Your task to perform on an android device: Open the stopwatch Image 0: 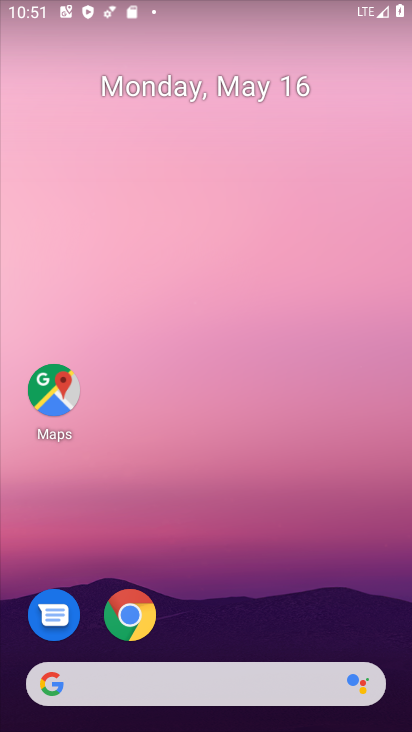
Step 0: drag from (233, 600) to (248, 272)
Your task to perform on an android device: Open the stopwatch Image 1: 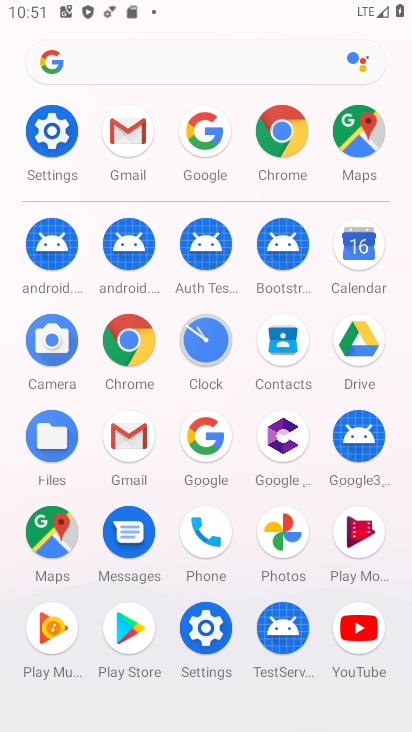
Step 1: click (210, 348)
Your task to perform on an android device: Open the stopwatch Image 2: 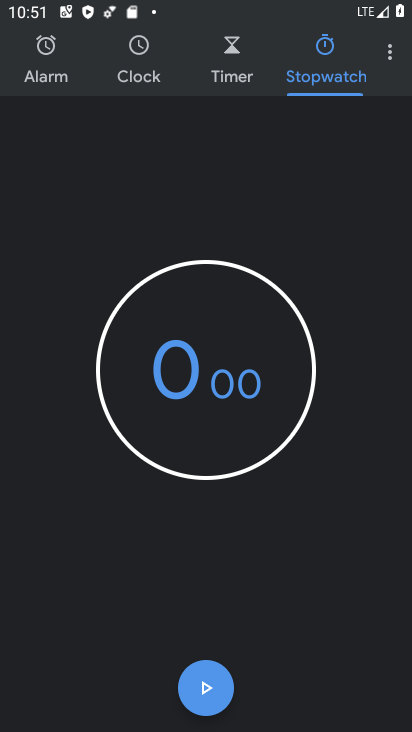
Step 2: task complete